Your task to perform on an android device: Open the calendar and show me this week's events? Image 0: 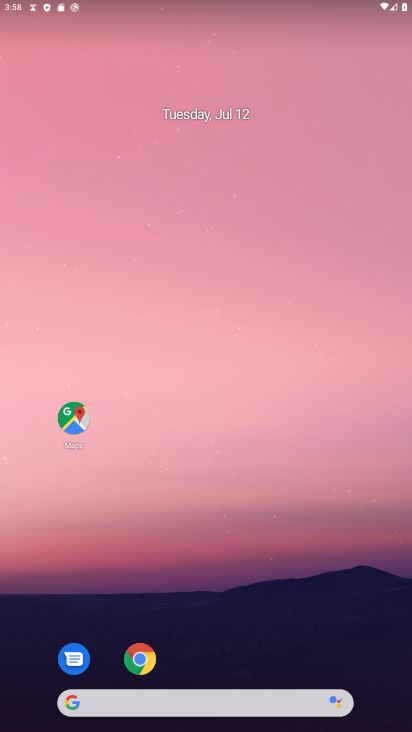
Step 0: press home button
Your task to perform on an android device: Open the calendar and show me this week's events? Image 1: 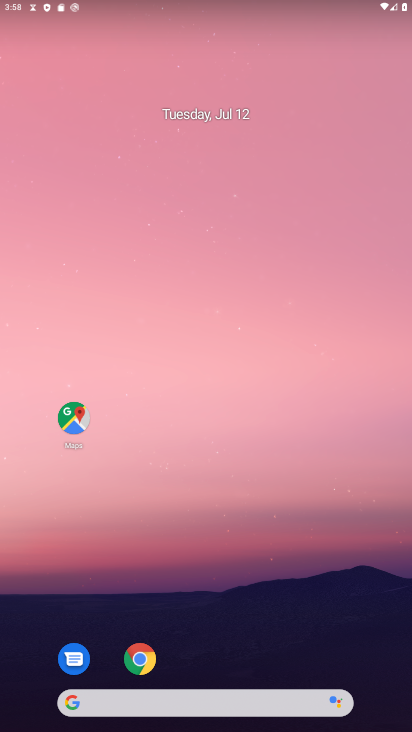
Step 1: drag from (232, 662) to (237, 111)
Your task to perform on an android device: Open the calendar and show me this week's events? Image 2: 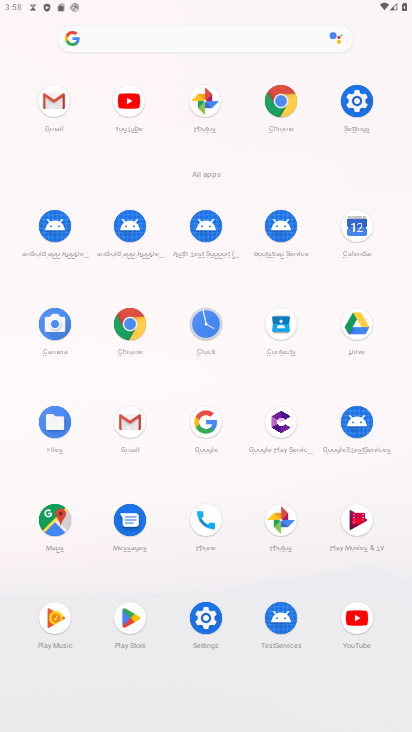
Step 2: click (355, 232)
Your task to perform on an android device: Open the calendar and show me this week's events? Image 3: 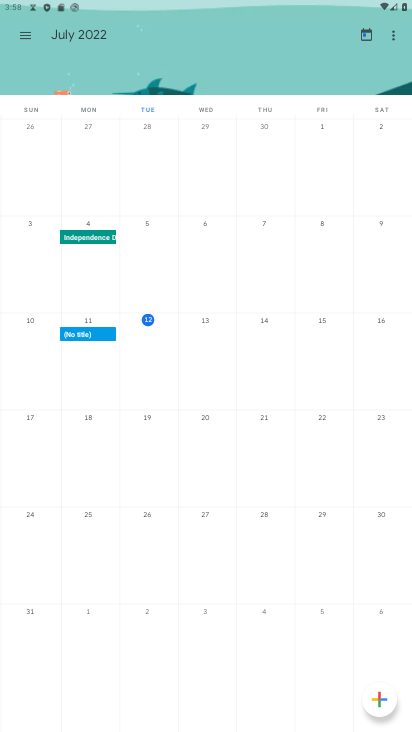
Step 3: click (25, 39)
Your task to perform on an android device: Open the calendar and show me this week's events? Image 4: 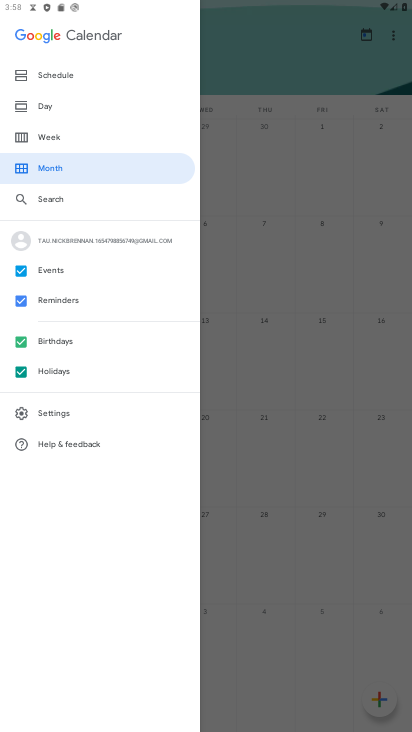
Step 4: click (44, 138)
Your task to perform on an android device: Open the calendar and show me this week's events? Image 5: 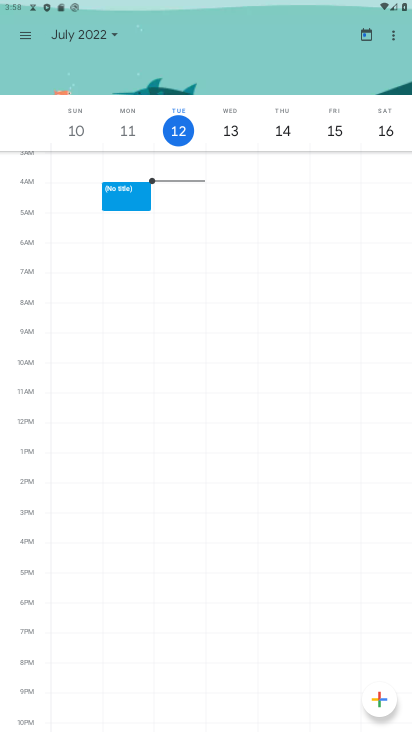
Step 5: task complete